Your task to perform on an android device: Open the calendar app, open the side menu, and click the "Day" option Image 0: 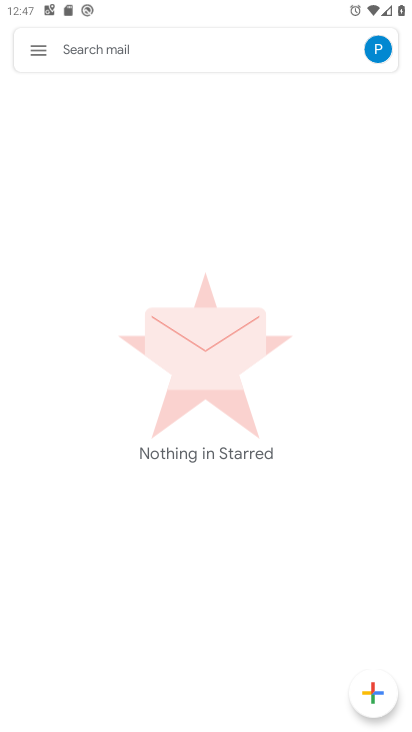
Step 0: press home button
Your task to perform on an android device: Open the calendar app, open the side menu, and click the "Day" option Image 1: 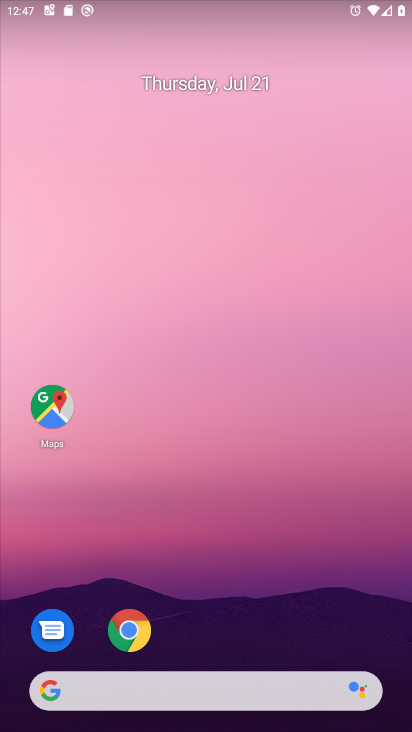
Step 1: drag from (232, 648) to (244, 292)
Your task to perform on an android device: Open the calendar app, open the side menu, and click the "Day" option Image 2: 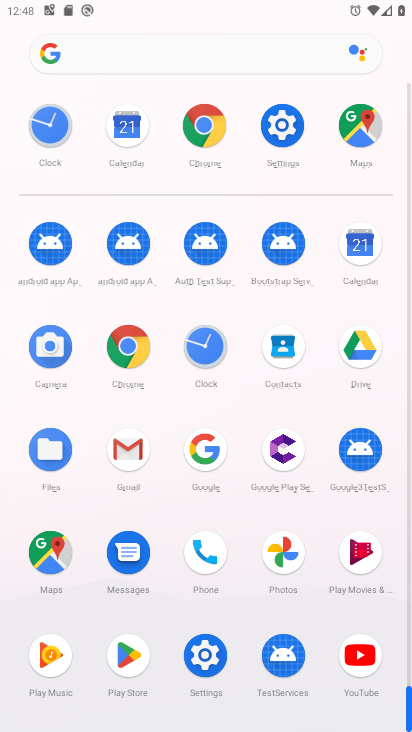
Step 2: click (338, 223)
Your task to perform on an android device: Open the calendar app, open the side menu, and click the "Day" option Image 3: 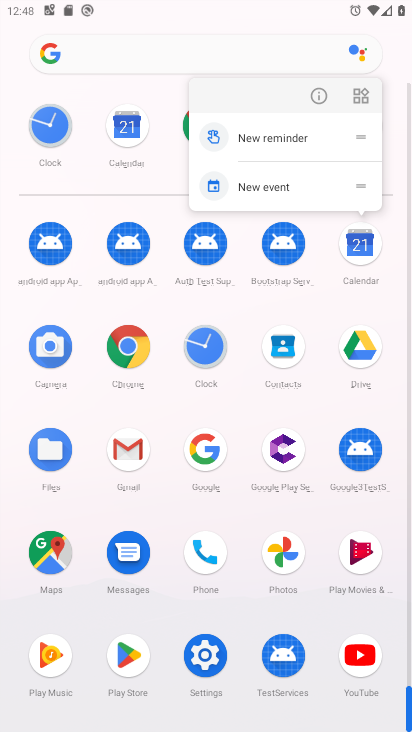
Step 3: click (327, 94)
Your task to perform on an android device: Open the calendar app, open the side menu, and click the "Day" option Image 4: 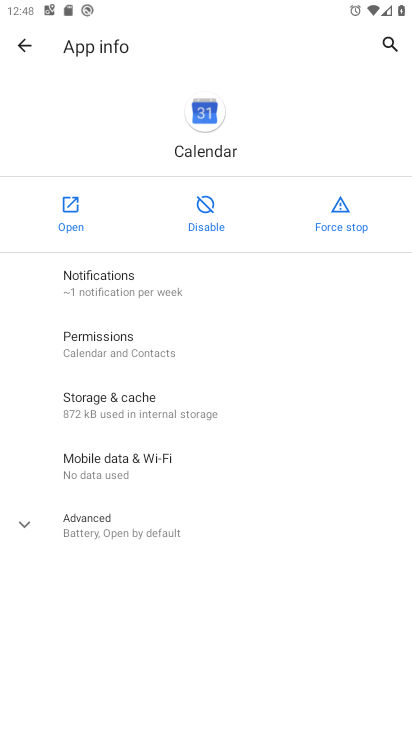
Step 4: click (71, 225)
Your task to perform on an android device: Open the calendar app, open the side menu, and click the "Day" option Image 5: 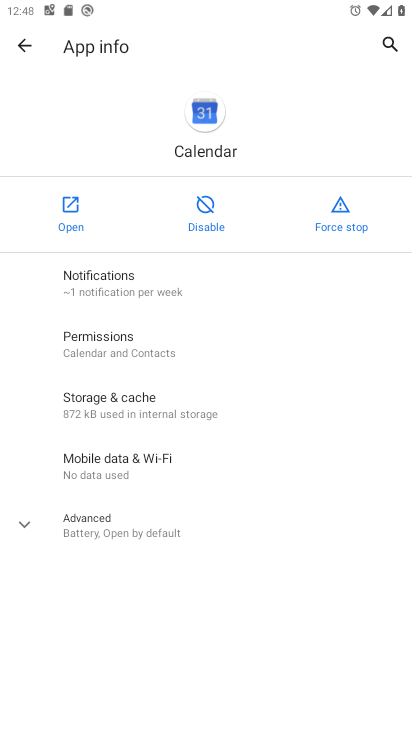
Step 5: click (71, 225)
Your task to perform on an android device: Open the calendar app, open the side menu, and click the "Day" option Image 6: 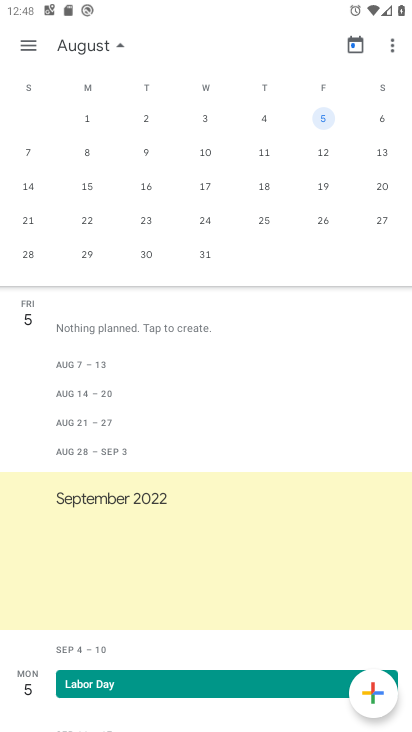
Step 6: click (25, 38)
Your task to perform on an android device: Open the calendar app, open the side menu, and click the "Day" option Image 7: 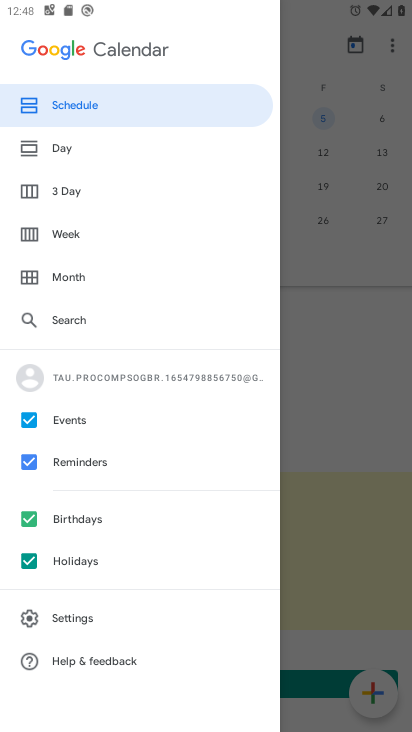
Step 7: click (80, 150)
Your task to perform on an android device: Open the calendar app, open the side menu, and click the "Day" option Image 8: 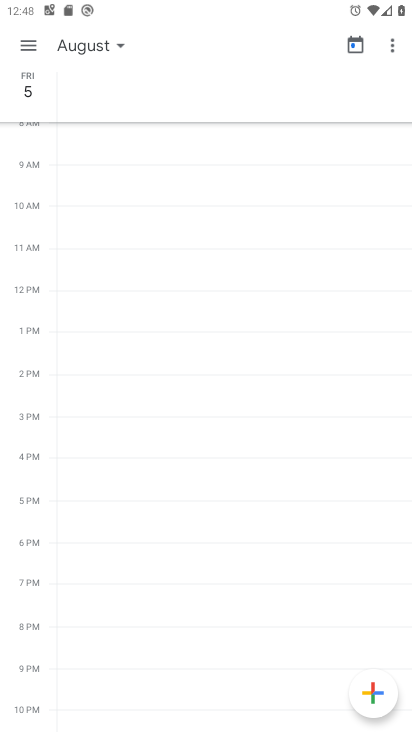
Step 8: task complete